Your task to perform on an android device: toggle priority inbox in the gmail app Image 0: 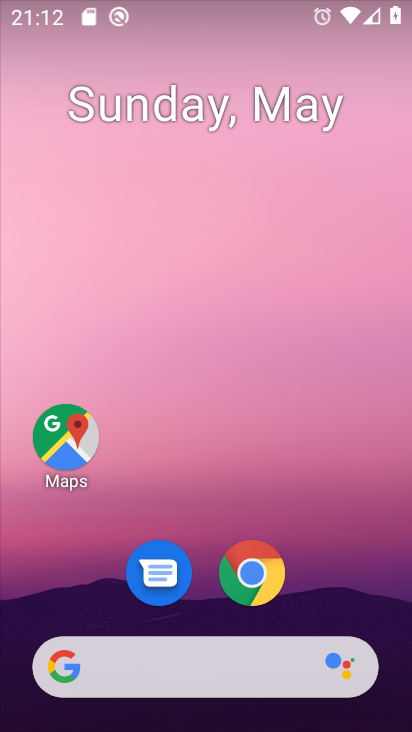
Step 0: drag from (196, 484) to (243, 0)
Your task to perform on an android device: toggle priority inbox in the gmail app Image 1: 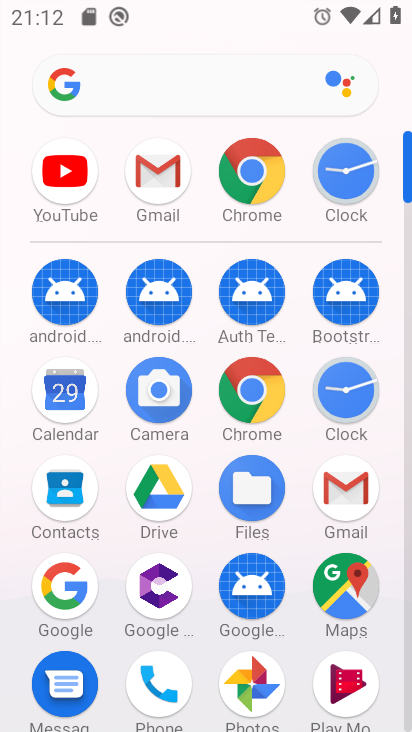
Step 1: click (167, 173)
Your task to perform on an android device: toggle priority inbox in the gmail app Image 2: 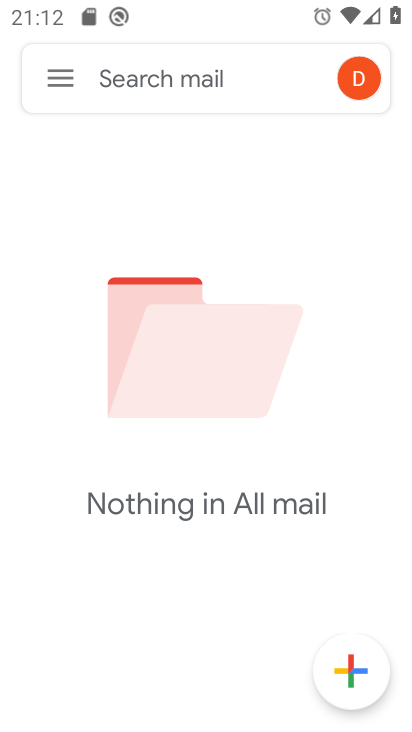
Step 2: click (63, 78)
Your task to perform on an android device: toggle priority inbox in the gmail app Image 3: 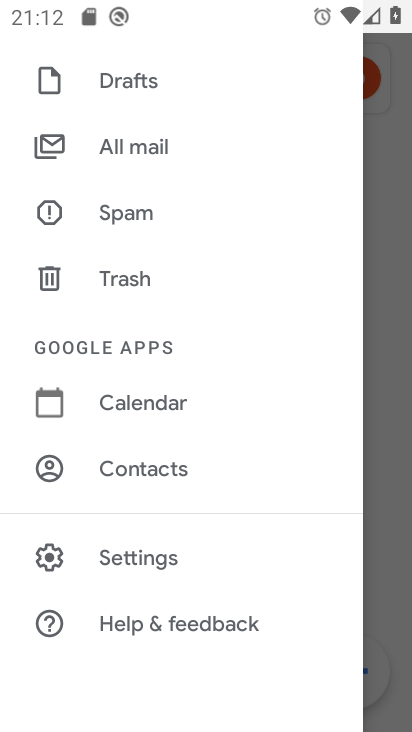
Step 3: click (174, 554)
Your task to perform on an android device: toggle priority inbox in the gmail app Image 4: 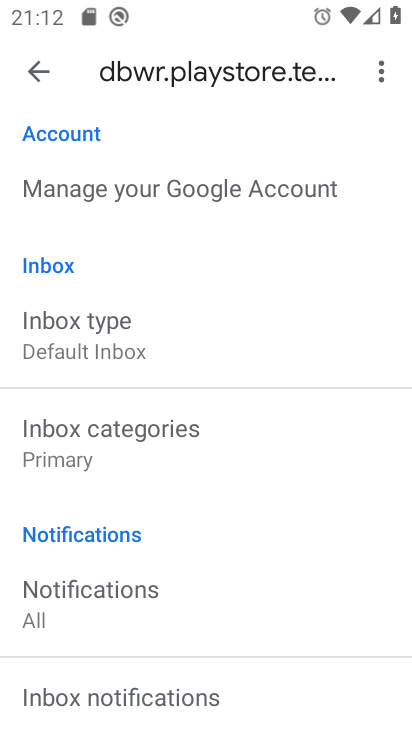
Step 4: click (148, 341)
Your task to perform on an android device: toggle priority inbox in the gmail app Image 5: 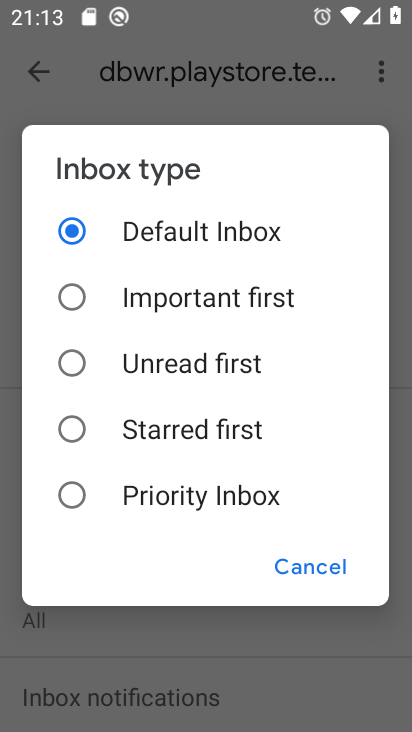
Step 5: click (70, 487)
Your task to perform on an android device: toggle priority inbox in the gmail app Image 6: 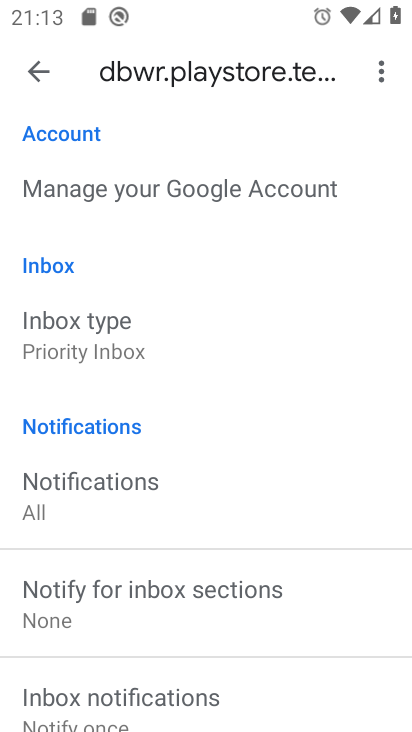
Step 6: task complete